Your task to perform on an android device: toggle translation in the chrome app Image 0: 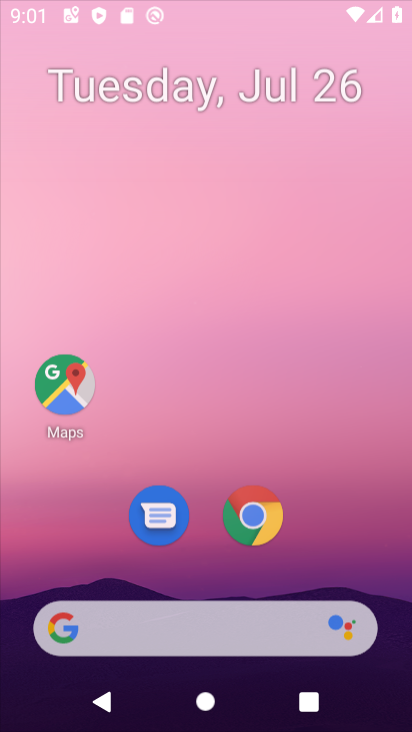
Step 0: click (354, 126)
Your task to perform on an android device: toggle translation in the chrome app Image 1: 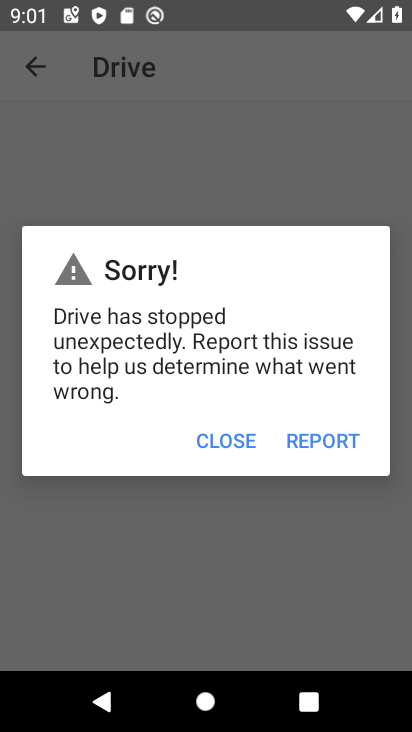
Step 1: press home button
Your task to perform on an android device: toggle translation in the chrome app Image 2: 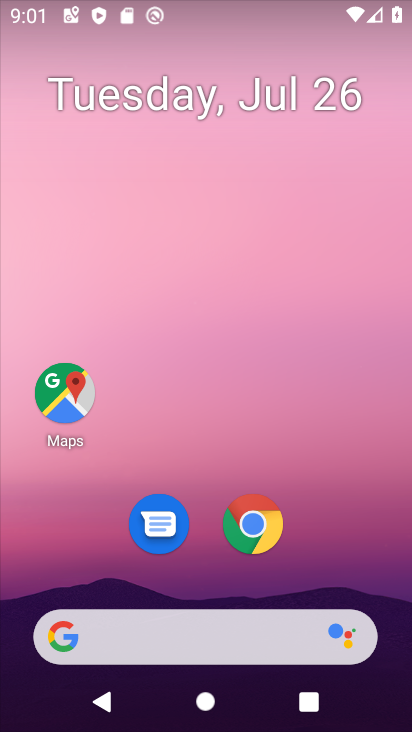
Step 2: click (258, 529)
Your task to perform on an android device: toggle translation in the chrome app Image 3: 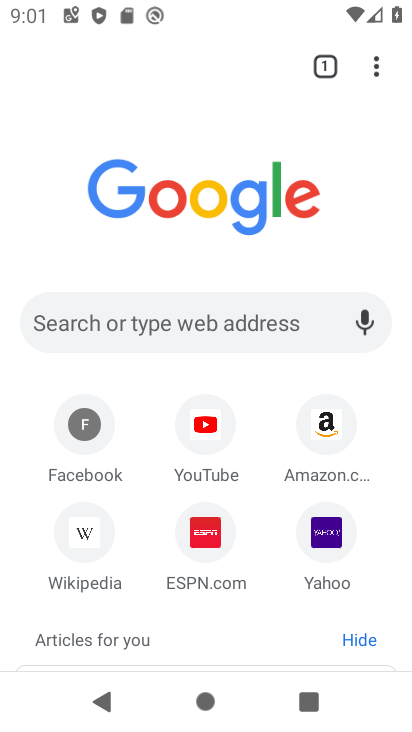
Step 3: drag from (374, 64) to (218, 573)
Your task to perform on an android device: toggle translation in the chrome app Image 4: 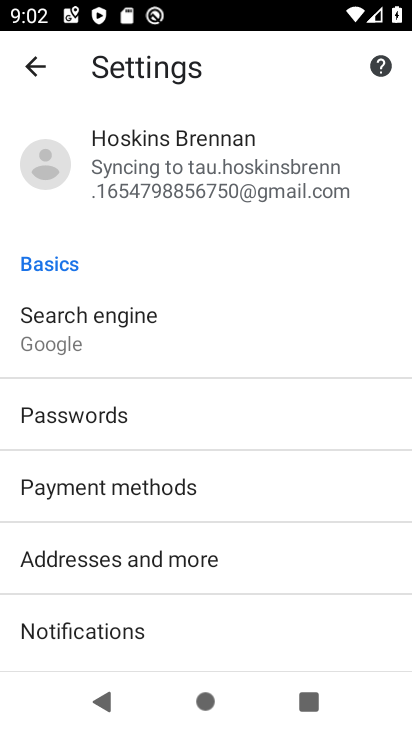
Step 4: drag from (200, 618) to (355, 179)
Your task to perform on an android device: toggle translation in the chrome app Image 5: 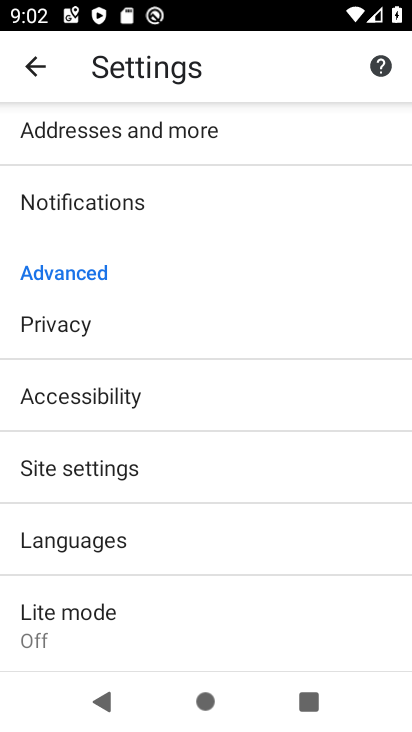
Step 5: click (109, 546)
Your task to perform on an android device: toggle translation in the chrome app Image 6: 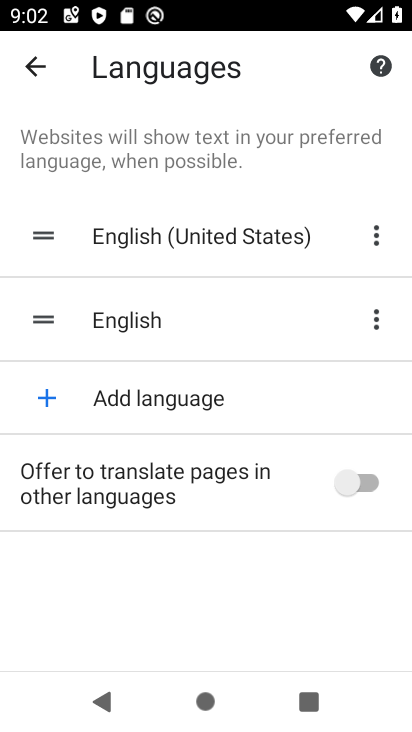
Step 6: click (369, 476)
Your task to perform on an android device: toggle translation in the chrome app Image 7: 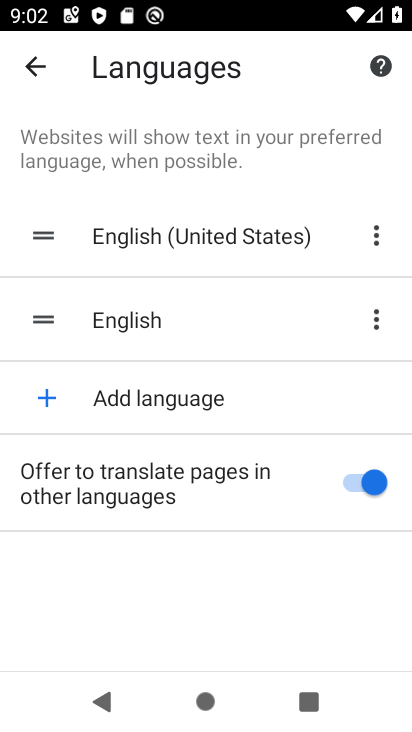
Step 7: task complete